Your task to perform on an android device: Check the weather Image 0: 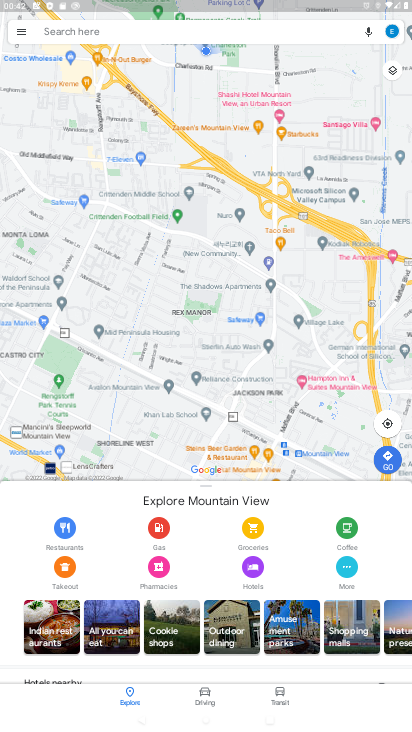
Step 0: press home button
Your task to perform on an android device: Check the weather Image 1: 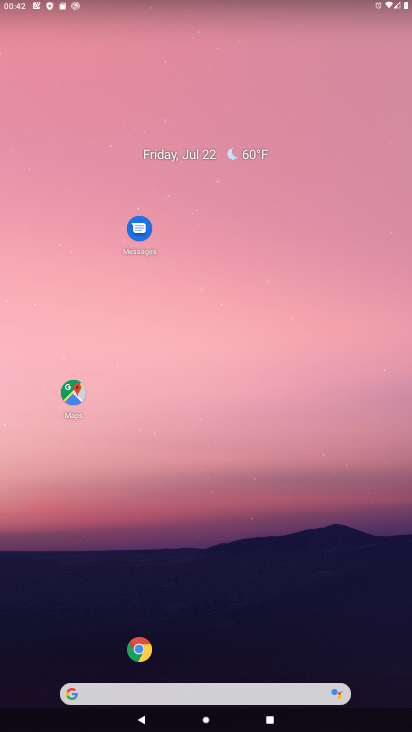
Step 1: click (155, 688)
Your task to perform on an android device: Check the weather Image 2: 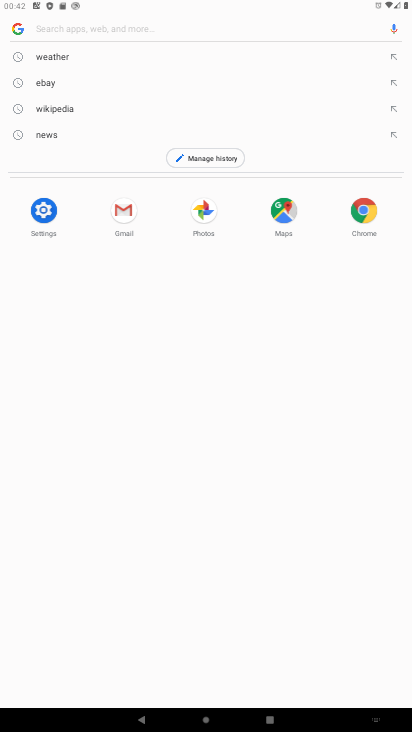
Step 2: type "Check the weather"
Your task to perform on an android device: Check the weather Image 3: 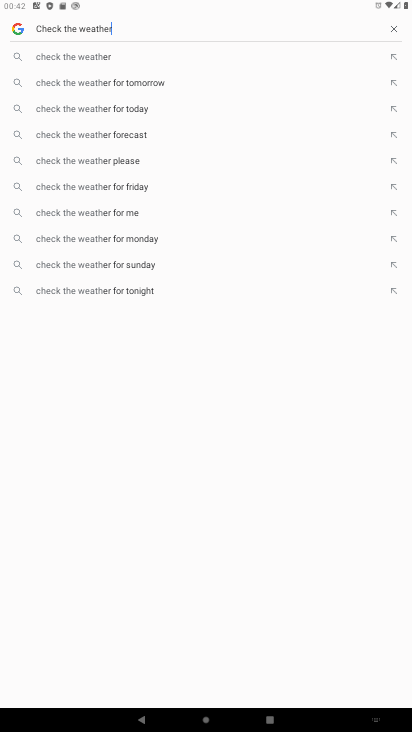
Step 3: type ""
Your task to perform on an android device: Check the weather Image 4: 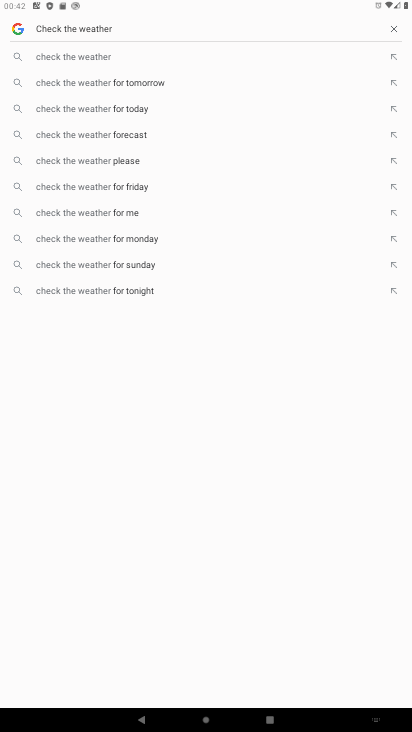
Step 4: type ""
Your task to perform on an android device: Check the weather Image 5: 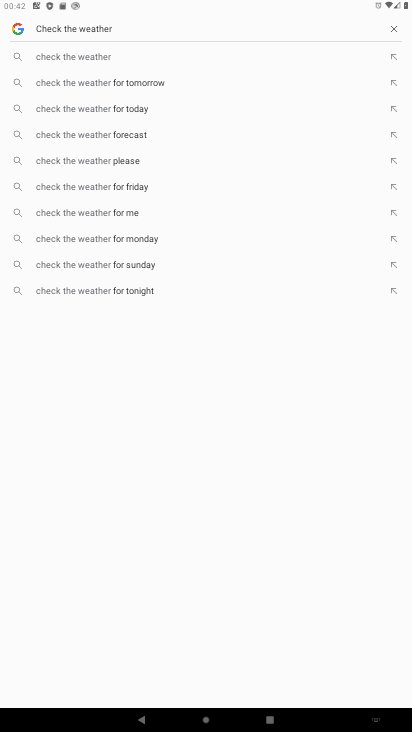
Step 5: type ""
Your task to perform on an android device: Check the weather Image 6: 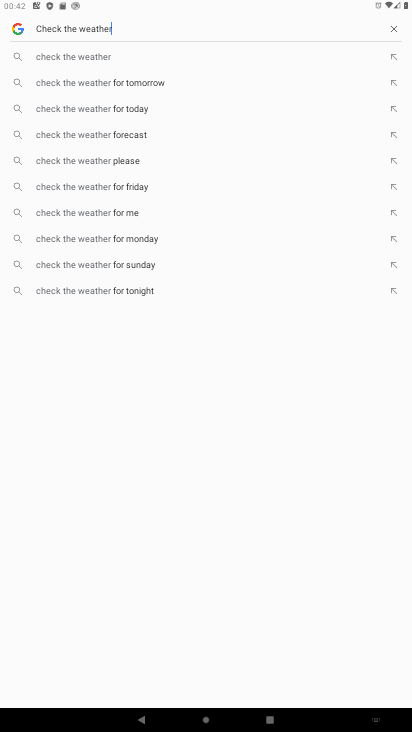
Step 6: type ""
Your task to perform on an android device: Check the weather Image 7: 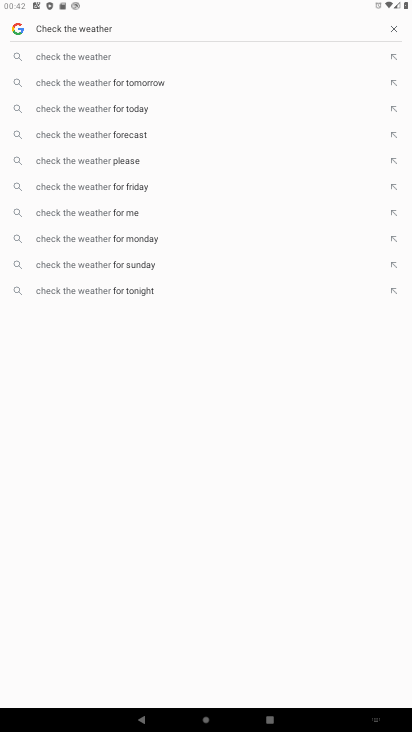
Step 7: type ""
Your task to perform on an android device: Check the weather Image 8: 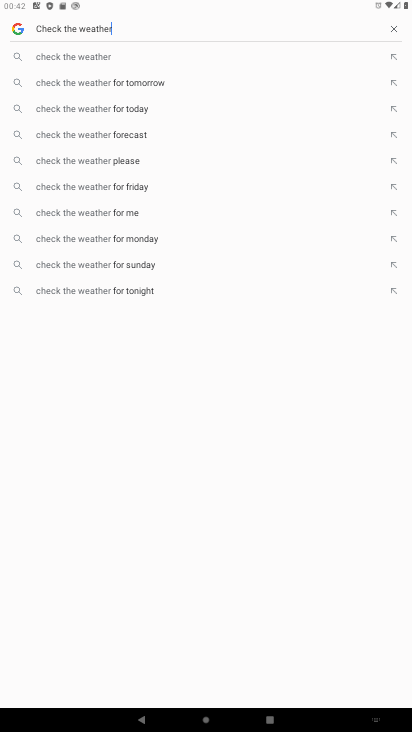
Step 8: click (84, 44)
Your task to perform on an android device: Check the weather Image 9: 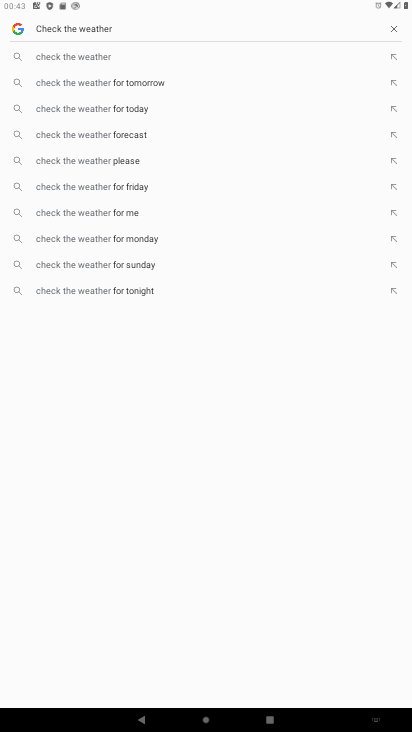
Step 9: click (84, 61)
Your task to perform on an android device: Check the weather Image 10: 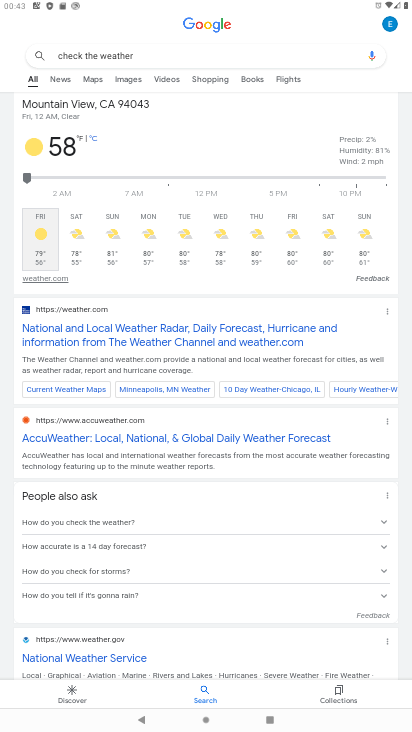
Step 10: task complete